Your task to perform on an android device: open sync settings in chrome Image 0: 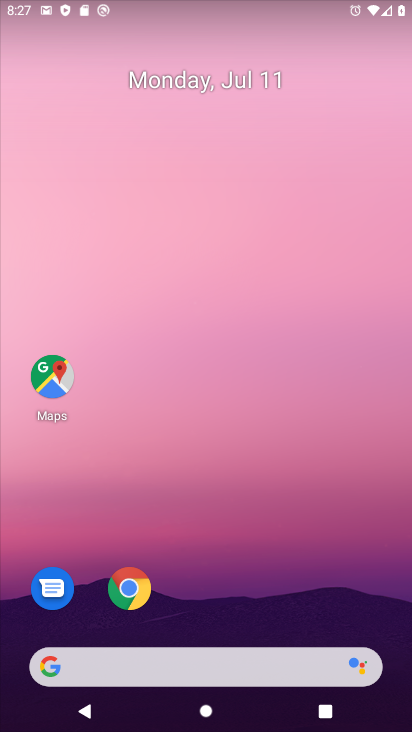
Step 0: click (130, 586)
Your task to perform on an android device: open sync settings in chrome Image 1: 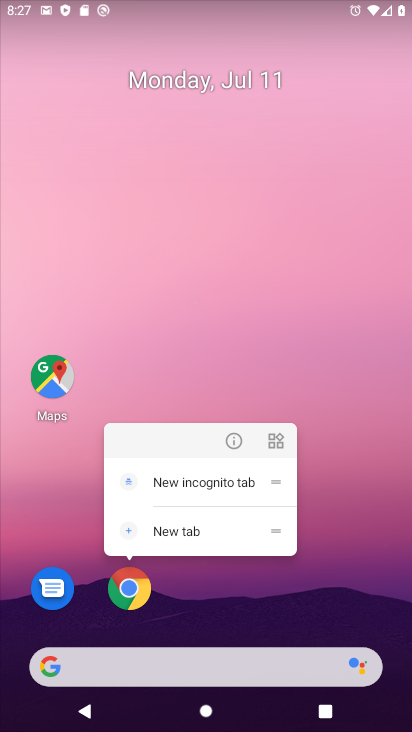
Step 1: click (130, 588)
Your task to perform on an android device: open sync settings in chrome Image 2: 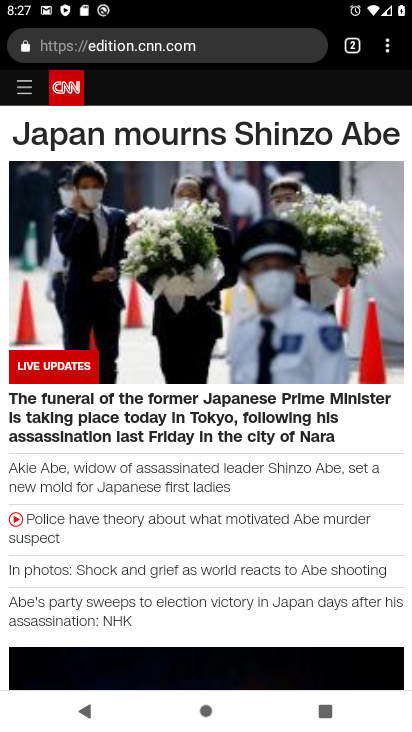
Step 2: drag from (388, 36) to (250, 605)
Your task to perform on an android device: open sync settings in chrome Image 3: 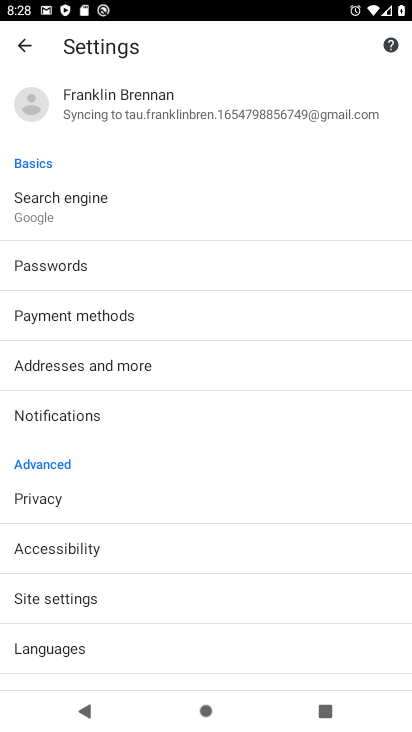
Step 3: click (129, 97)
Your task to perform on an android device: open sync settings in chrome Image 4: 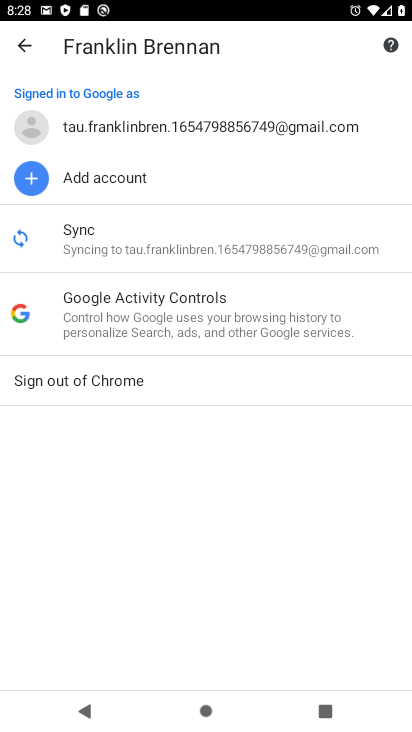
Step 4: click (131, 231)
Your task to perform on an android device: open sync settings in chrome Image 5: 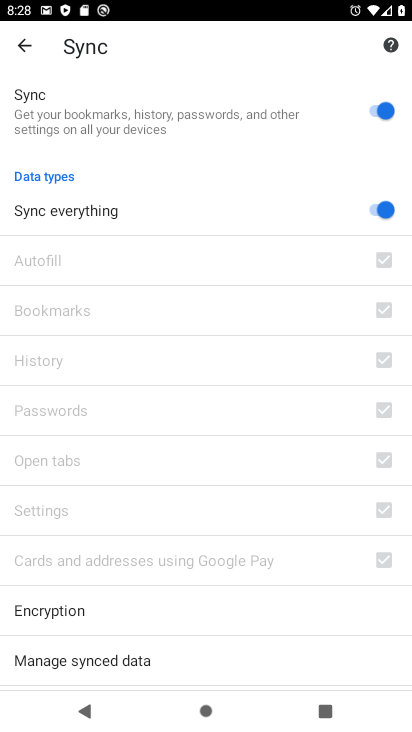
Step 5: task complete